Your task to perform on an android device: see tabs open on other devices in the chrome app Image 0: 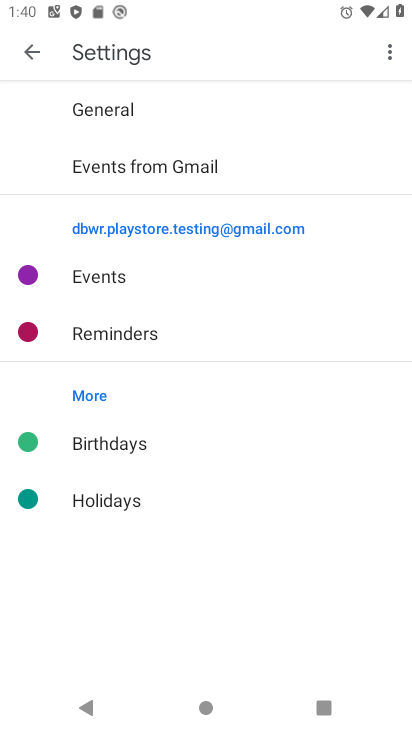
Step 0: press home button
Your task to perform on an android device: see tabs open on other devices in the chrome app Image 1: 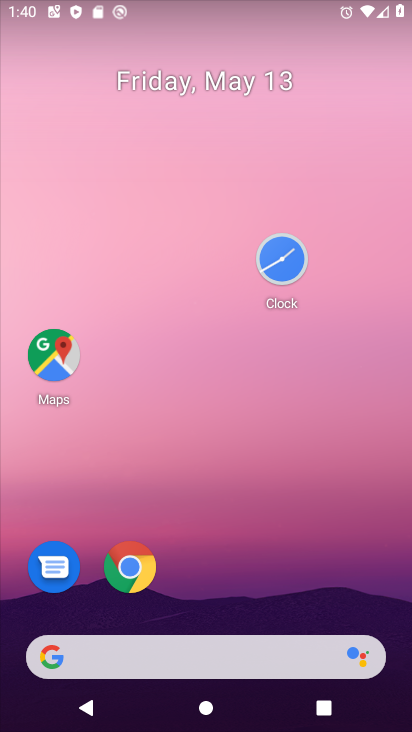
Step 1: drag from (299, 561) to (324, 75)
Your task to perform on an android device: see tabs open on other devices in the chrome app Image 2: 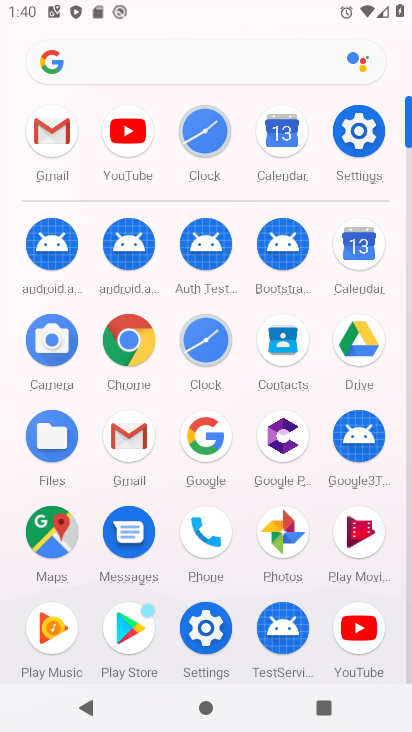
Step 2: click (142, 372)
Your task to perform on an android device: see tabs open on other devices in the chrome app Image 3: 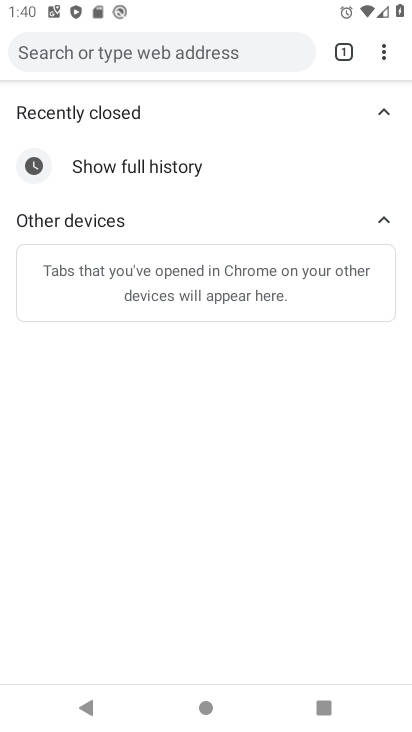
Step 3: click (379, 55)
Your task to perform on an android device: see tabs open on other devices in the chrome app Image 4: 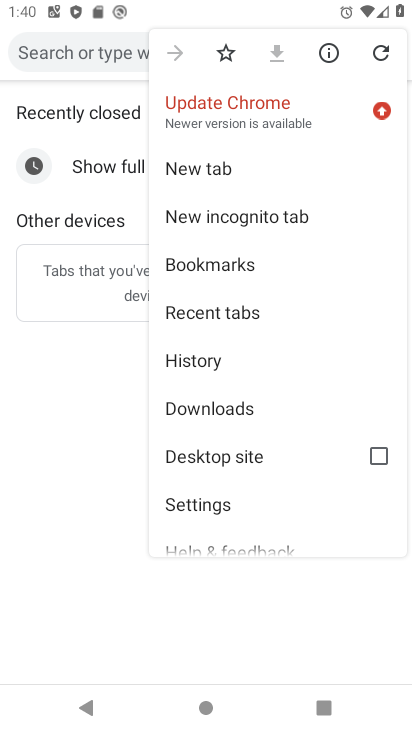
Step 4: click (243, 308)
Your task to perform on an android device: see tabs open on other devices in the chrome app Image 5: 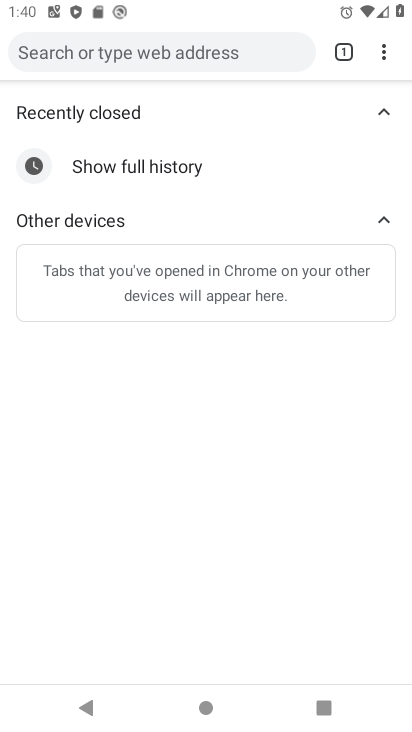
Step 5: task complete